Your task to perform on an android device: Clear all items from cart on newegg.com. Search for duracell triple a on newegg.com, select the first entry, and add it to the cart. Image 0: 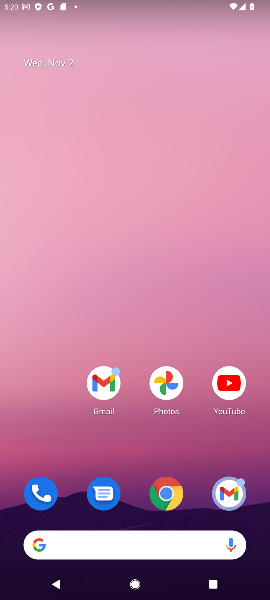
Step 0: drag from (63, 499) to (98, 199)
Your task to perform on an android device: Clear all items from cart on newegg.com. Search for duracell triple a on newegg.com, select the first entry, and add it to the cart. Image 1: 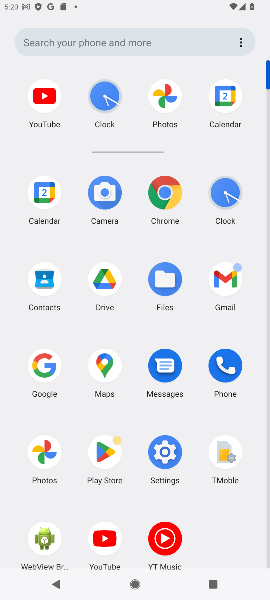
Step 1: click (38, 364)
Your task to perform on an android device: Clear all items from cart on newegg.com. Search for duracell triple a on newegg.com, select the first entry, and add it to the cart. Image 2: 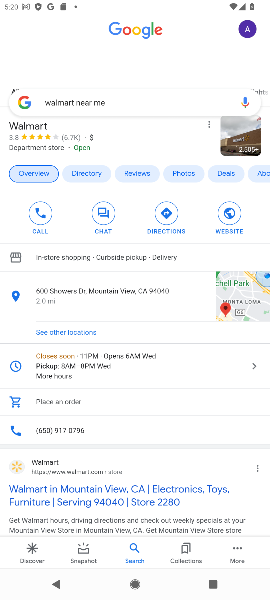
Step 2: click (105, 97)
Your task to perform on an android device: Clear all items from cart on newegg.com. Search for duracell triple a on newegg.com, select the first entry, and add it to the cart. Image 3: 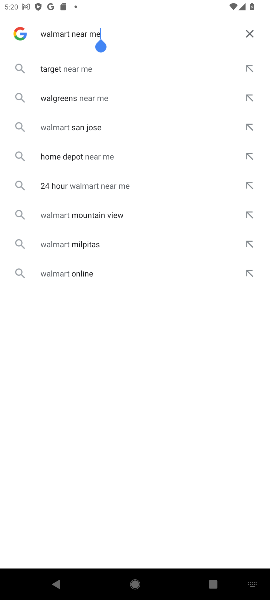
Step 3: click (244, 31)
Your task to perform on an android device: Clear all items from cart on newegg.com. Search for duracell triple a on newegg.com, select the first entry, and add it to the cart. Image 4: 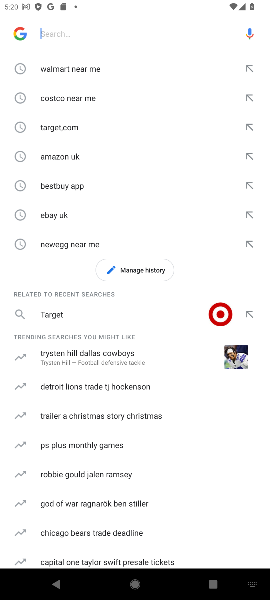
Step 4: click (48, 26)
Your task to perform on an android device: Clear all items from cart on newegg.com. Search for duracell triple a on newegg.com, select the first entry, and add it to the cart. Image 5: 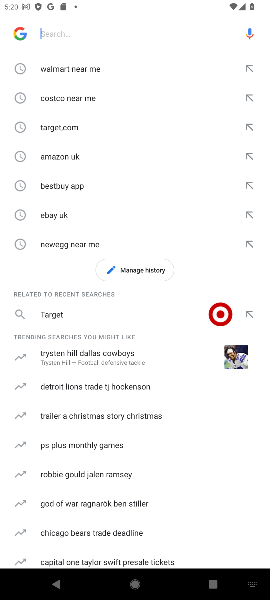
Step 5: type "newegg "
Your task to perform on an android device: Clear all items from cart on newegg.com. Search for duracell triple a on newegg.com, select the first entry, and add it to the cart. Image 6: 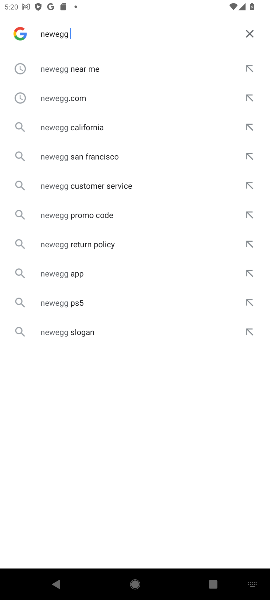
Step 6: click (63, 67)
Your task to perform on an android device: Clear all items from cart on newegg.com. Search for duracell triple a on newegg.com, select the first entry, and add it to the cart. Image 7: 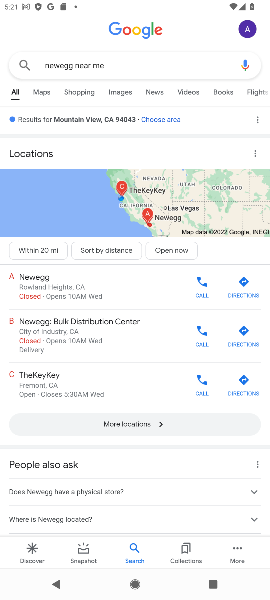
Step 7: drag from (67, 454) to (77, 195)
Your task to perform on an android device: Clear all items from cart on newegg.com. Search for duracell triple a on newegg.com, select the first entry, and add it to the cart. Image 8: 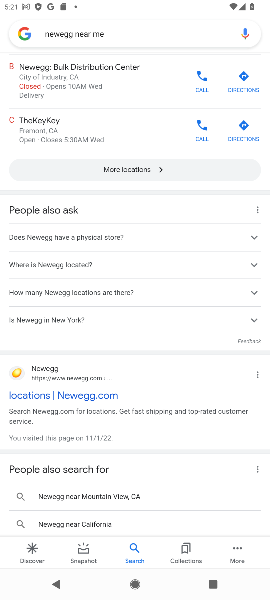
Step 8: click (17, 372)
Your task to perform on an android device: Clear all items from cart on newegg.com. Search for duracell triple a on newegg.com, select the first entry, and add it to the cart. Image 9: 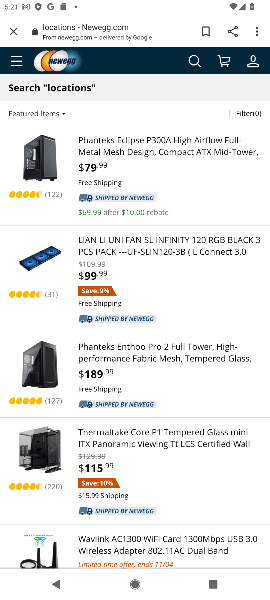
Step 9: click (195, 49)
Your task to perform on an android device: Clear all items from cart on newegg.com. Search for duracell triple a on newegg.com, select the first entry, and add it to the cart. Image 10: 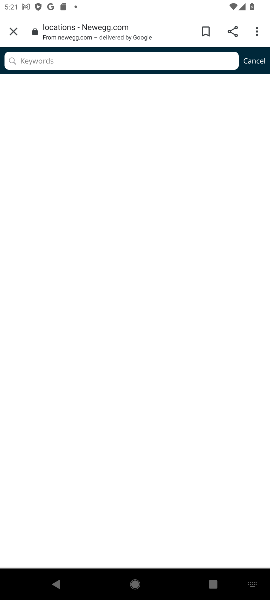
Step 10: click (78, 54)
Your task to perform on an android device: Clear all items from cart on newegg.com. Search for duracell triple a on newegg.com, select the first entry, and add it to the cart. Image 11: 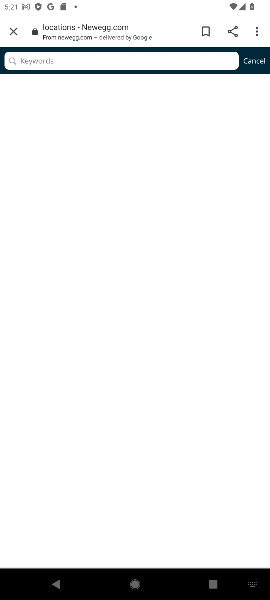
Step 11: type "duracell tripl "
Your task to perform on an android device: Clear all items from cart on newegg.com. Search for duracell triple a on newegg.com, select the first entry, and add it to the cart. Image 12: 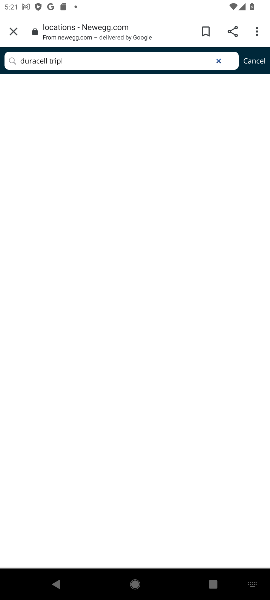
Step 12: click (245, 57)
Your task to perform on an android device: Clear all items from cart on newegg.com. Search for duracell triple a on newegg.com, select the first entry, and add it to the cart. Image 13: 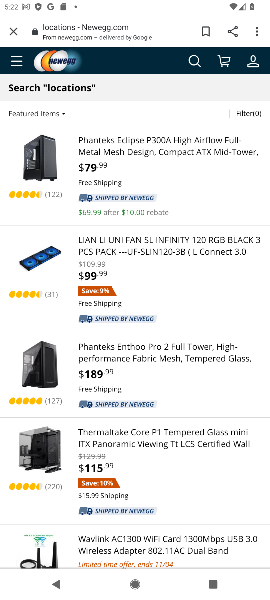
Step 13: click (193, 56)
Your task to perform on an android device: Clear all items from cart on newegg.com. Search for duracell triple a on newegg.com, select the first entry, and add it to the cart. Image 14: 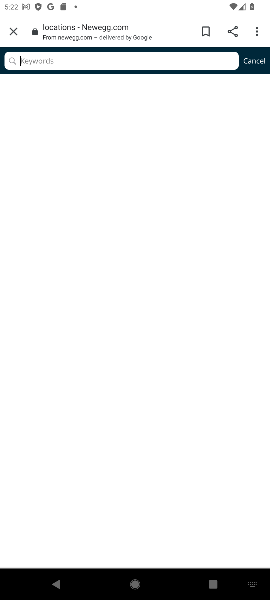
Step 14: click (122, 56)
Your task to perform on an android device: Clear all items from cart on newegg.com. Search for duracell triple a on newegg.com, select the first entry, and add it to the cart. Image 15: 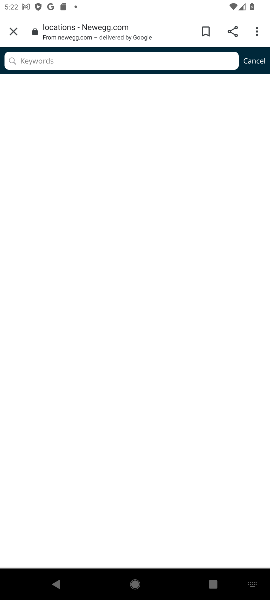
Step 15: type "duracell "
Your task to perform on an android device: Clear all items from cart on newegg.com. Search for duracell triple a on newegg.com, select the first entry, and add it to the cart. Image 16: 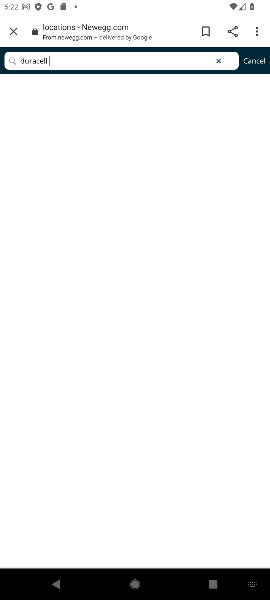
Step 16: task complete